Your task to perform on an android device: turn on data saver in the chrome app Image 0: 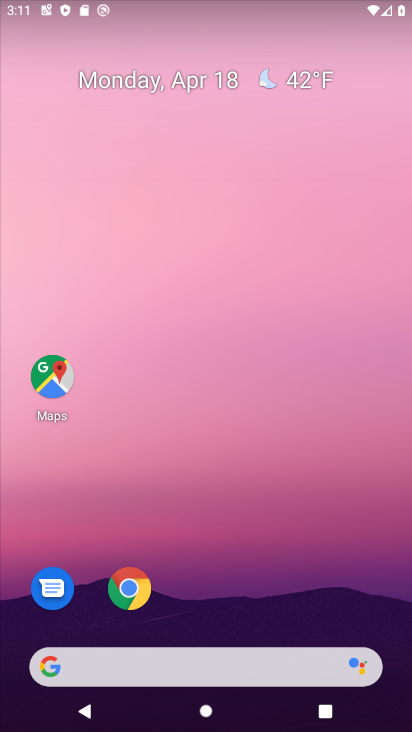
Step 0: click (138, 594)
Your task to perform on an android device: turn on data saver in the chrome app Image 1: 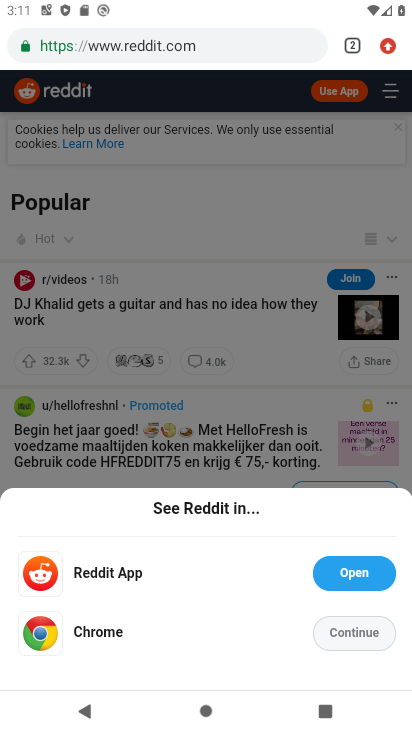
Step 1: click (388, 55)
Your task to perform on an android device: turn on data saver in the chrome app Image 2: 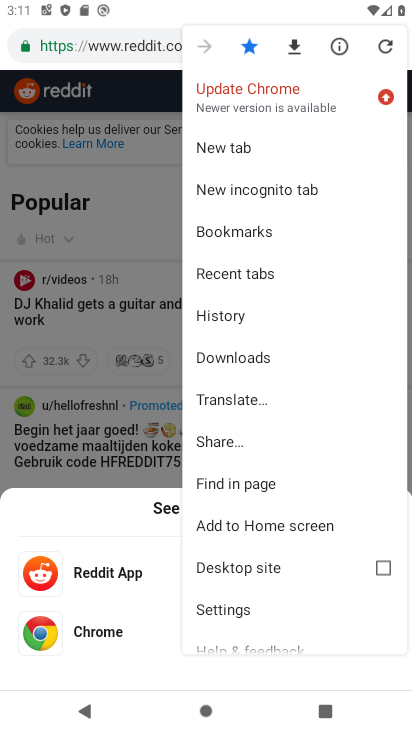
Step 2: click (214, 604)
Your task to perform on an android device: turn on data saver in the chrome app Image 3: 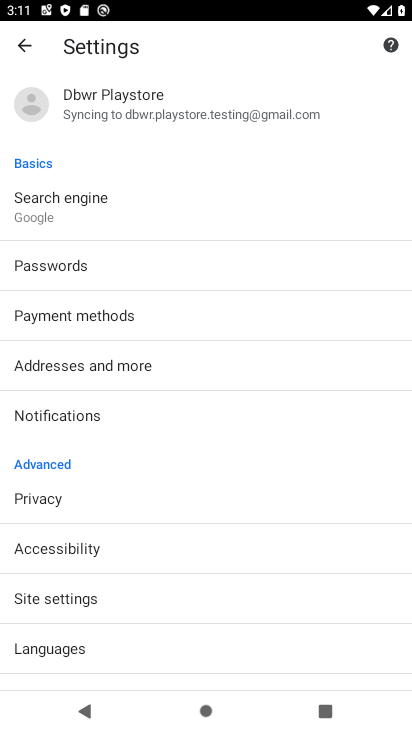
Step 3: drag from (56, 644) to (145, 97)
Your task to perform on an android device: turn on data saver in the chrome app Image 4: 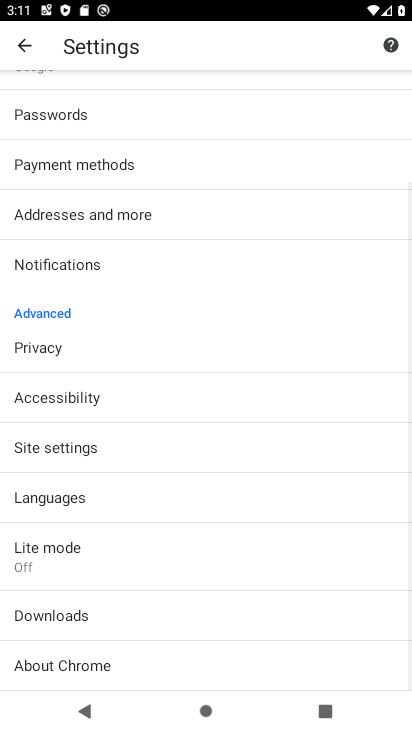
Step 4: click (47, 561)
Your task to perform on an android device: turn on data saver in the chrome app Image 5: 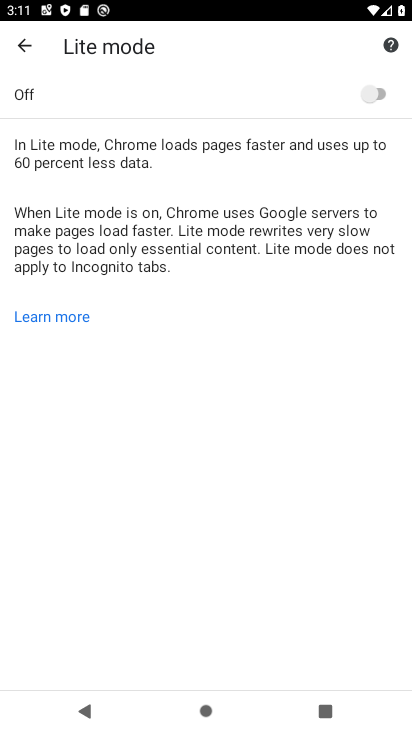
Step 5: click (374, 102)
Your task to perform on an android device: turn on data saver in the chrome app Image 6: 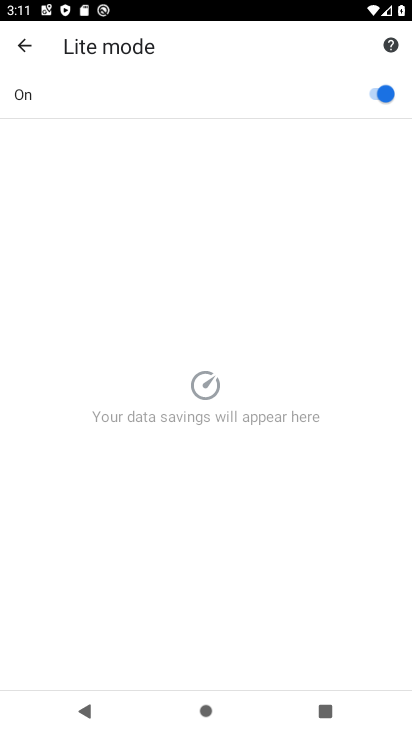
Step 6: task complete